Your task to perform on an android device: Go to settings Image 0: 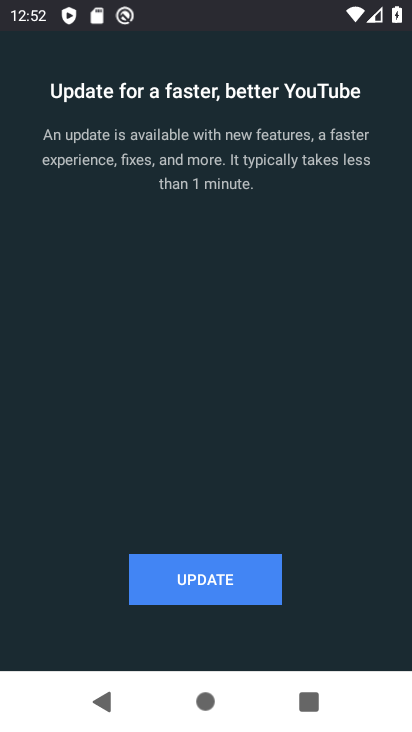
Step 0: press home button
Your task to perform on an android device: Go to settings Image 1: 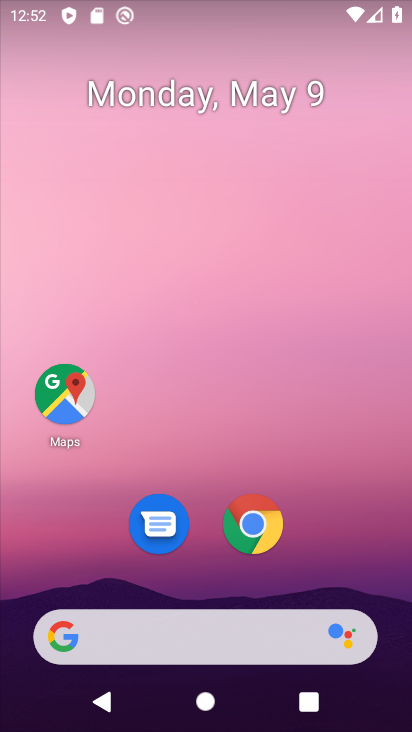
Step 1: drag from (304, 535) to (330, 53)
Your task to perform on an android device: Go to settings Image 2: 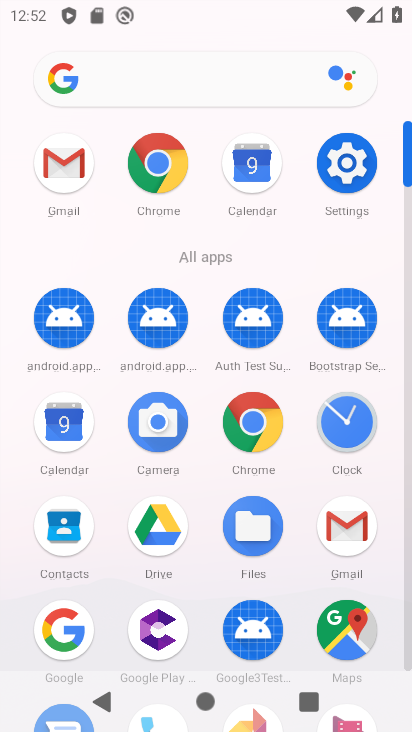
Step 2: click (349, 156)
Your task to perform on an android device: Go to settings Image 3: 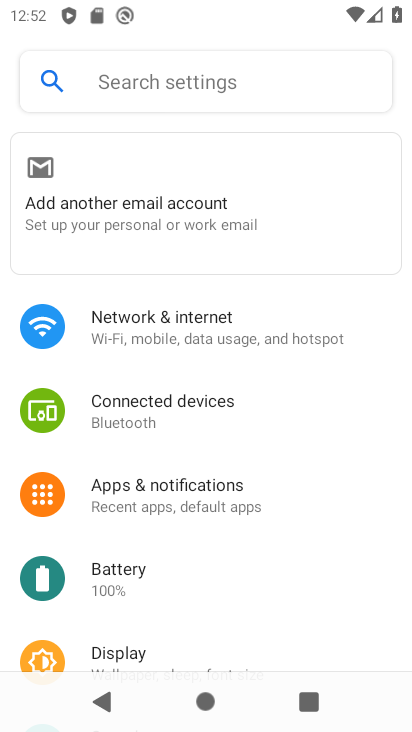
Step 3: task complete